Your task to perform on an android device: Open the stopwatch Image 0: 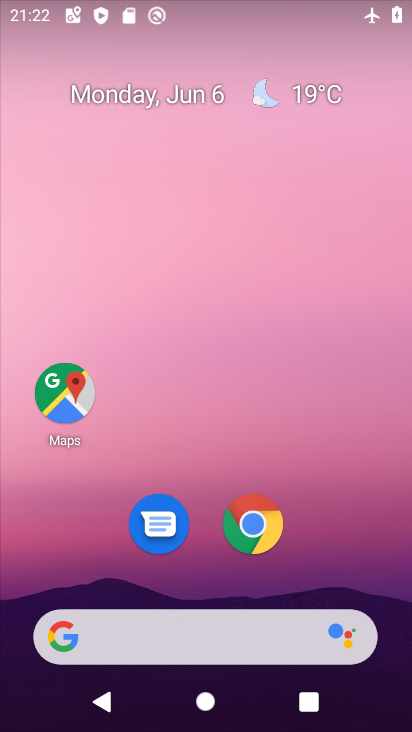
Step 0: drag from (313, 450) to (328, 5)
Your task to perform on an android device: Open the stopwatch Image 1: 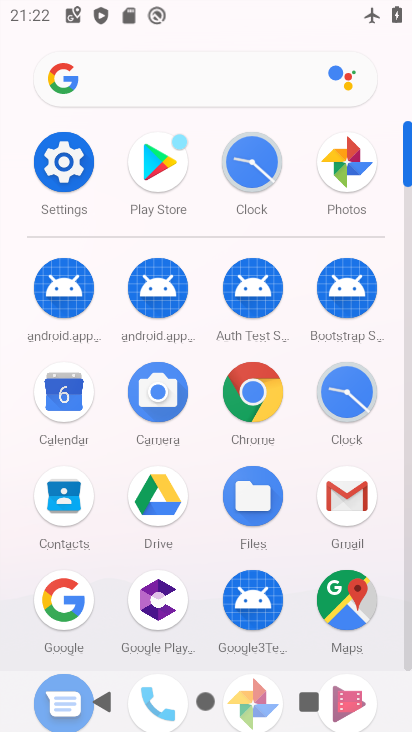
Step 1: click (72, 153)
Your task to perform on an android device: Open the stopwatch Image 2: 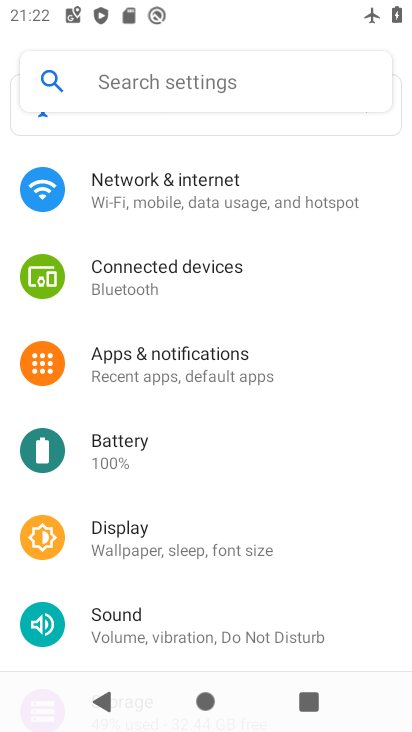
Step 2: press home button
Your task to perform on an android device: Open the stopwatch Image 3: 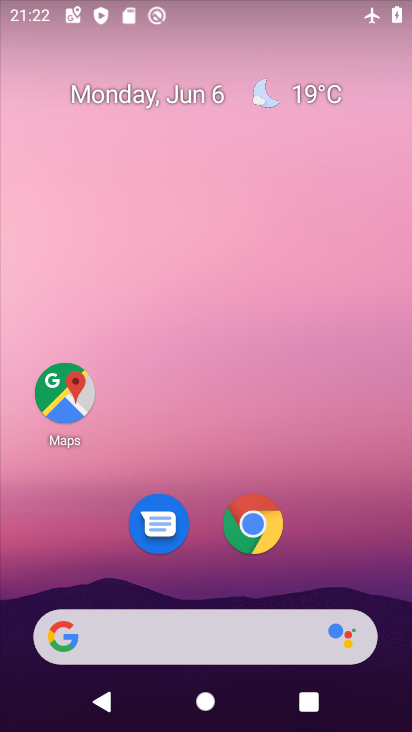
Step 3: drag from (332, 558) to (345, 47)
Your task to perform on an android device: Open the stopwatch Image 4: 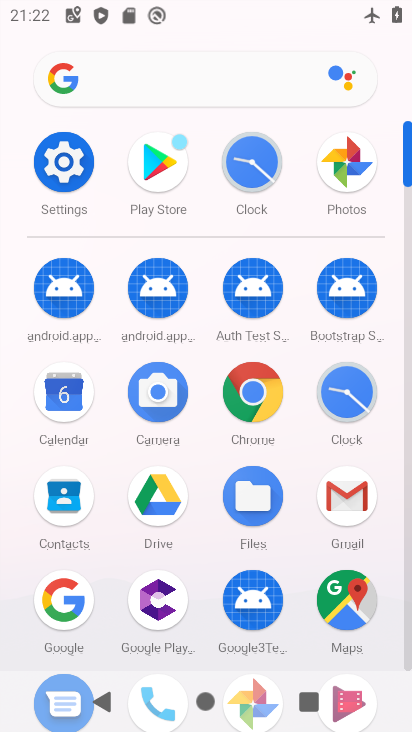
Step 4: click (271, 158)
Your task to perform on an android device: Open the stopwatch Image 5: 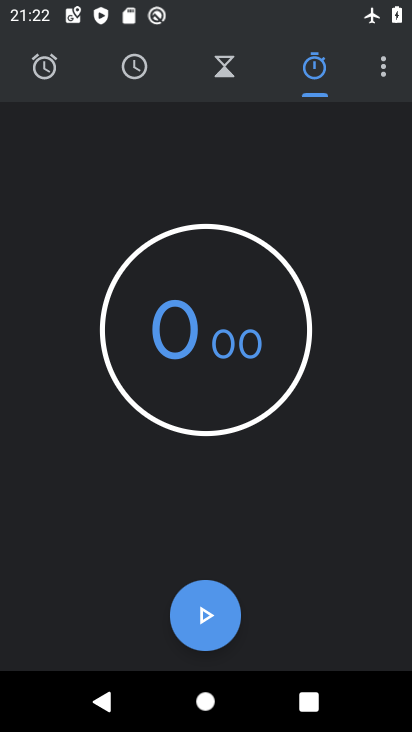
Step 5: task complete